Your task to perform on an android device: Go to Google Image 0: 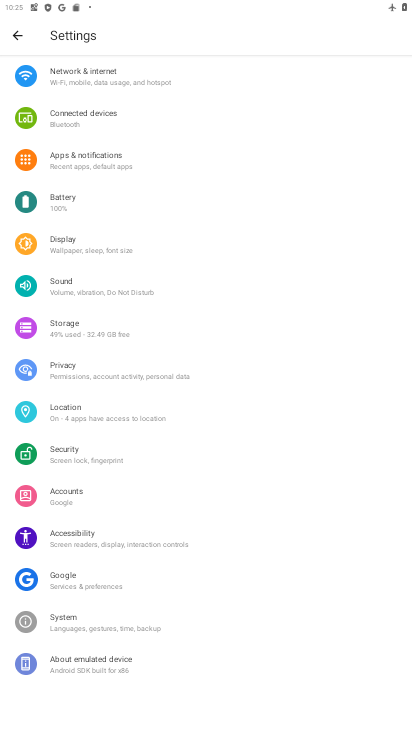
Step 0: press home button
Your task to perform on an android device: Go to Google Image 1: 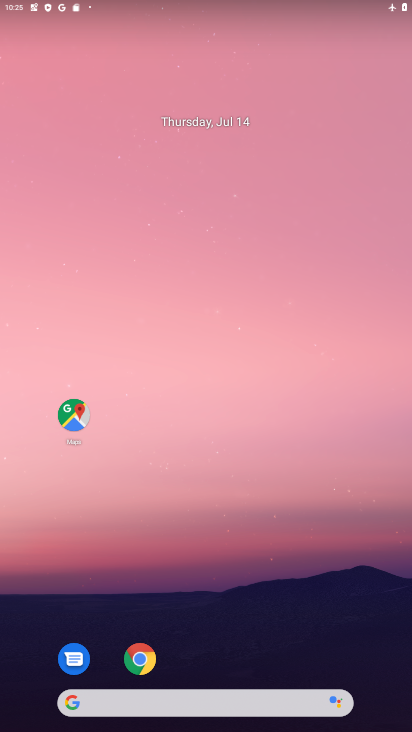
Step 1: drag from (308, 575) to (325, 109)
Your task to perform on an android device: Go to Google Image 2: 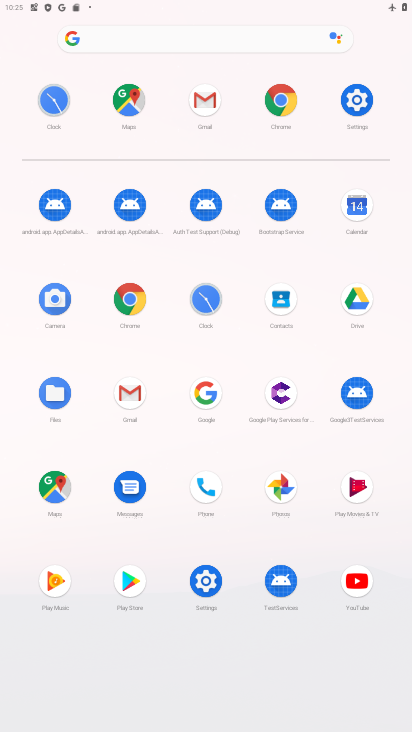
Step 2: click (205, 397)
Your task to perform on an android device: Go to Google Image 3: 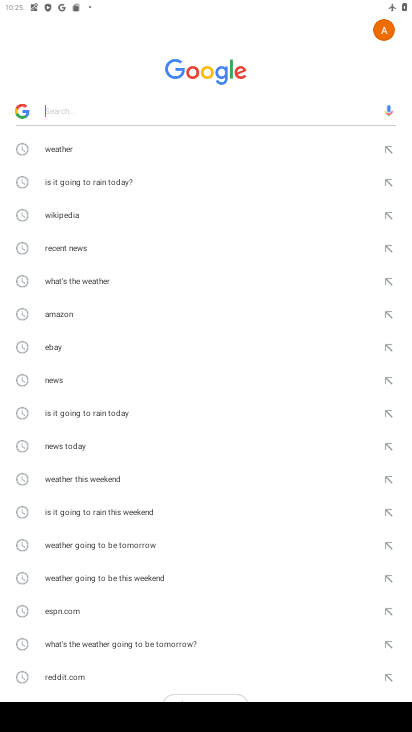
Step 3: task complete